Your task to perform on an android device: change notification settings in the gmail app Image 0: 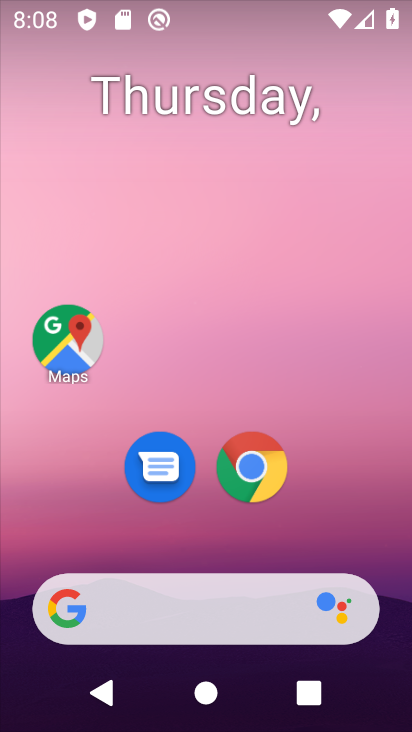
Step 0: drag from (222, 540) to (338, 129)
Your task to perform on an android device: change notification settings in the gmail app Image 1: 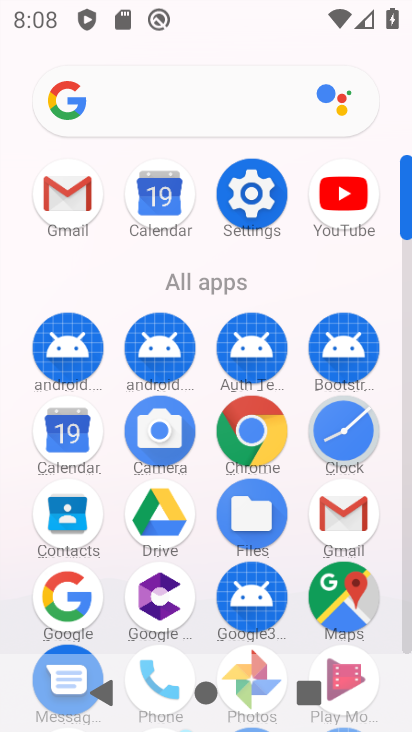
Step 1: click (74, 185)
Your task to perform on an android device: change notification settings in the gmail app Image 2: 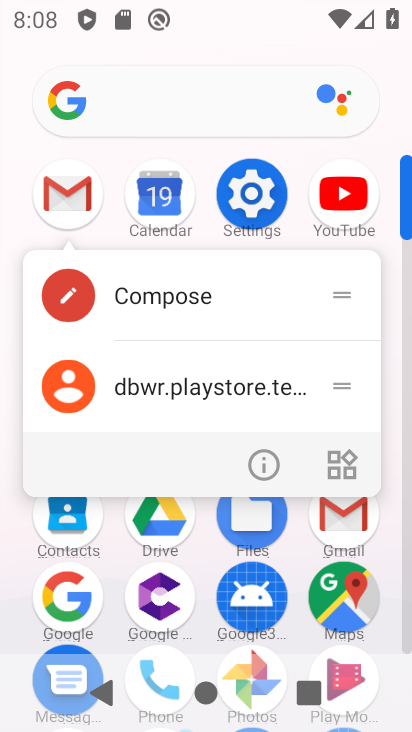
Step 2: click (276, 462)
Your task to perform on an android device: change notification settings in the gmail app Image 3: 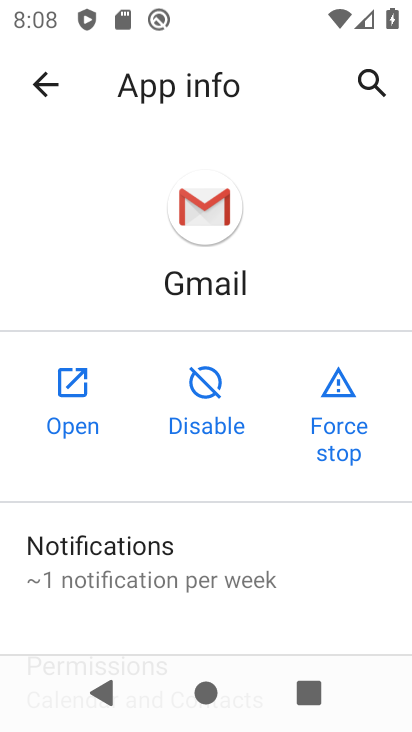
Step 3: click (239, 547)
Your task to perform on an android device: change notification settings in the gmail app Image 4: 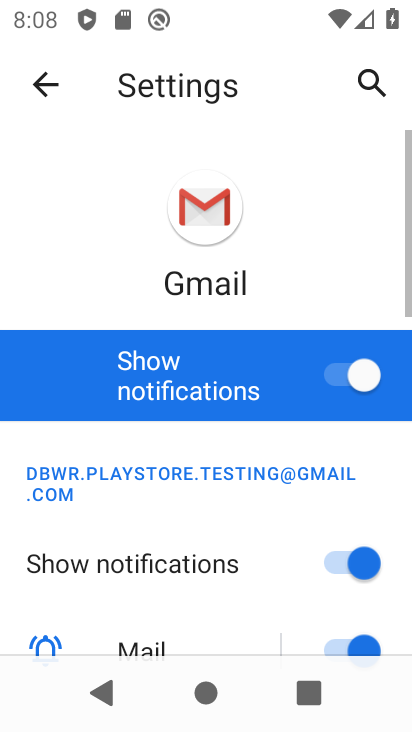
Step 4: drag from (223, 593) to (313, 279)
Your task to perform on an android device: change notification settings in the gmail app Image 5: 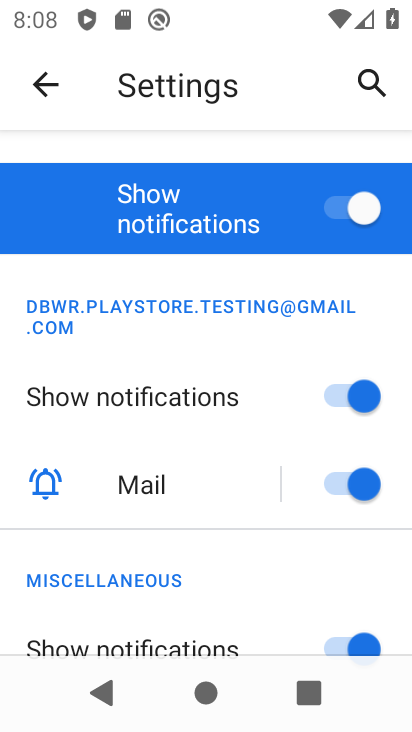
Step 5: click (362, 392)
Your task to perform on an android device: change notification settings in the gmail app Image 6: 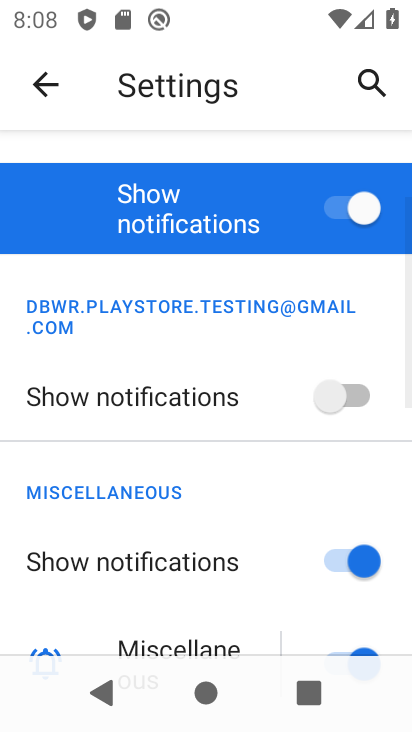
Step 6: task complete